Your task to perform on an android device: turn off wifi Image 0: 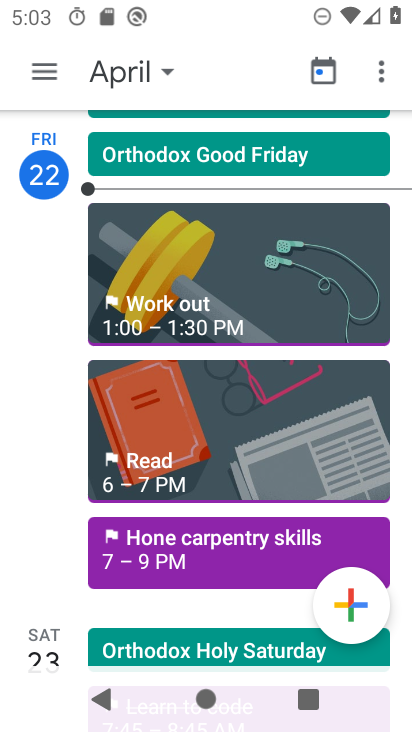
Step 0: drag from (173, 11) to (180, 522)
Your task to perform on an android device: turn off wifi Image 1: 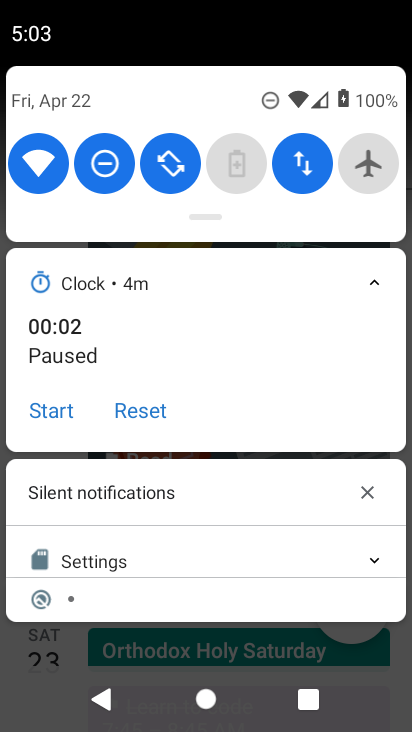
Step 1: click (44, 154)
Your task to perform on an android device: turn off wifi Image 2: 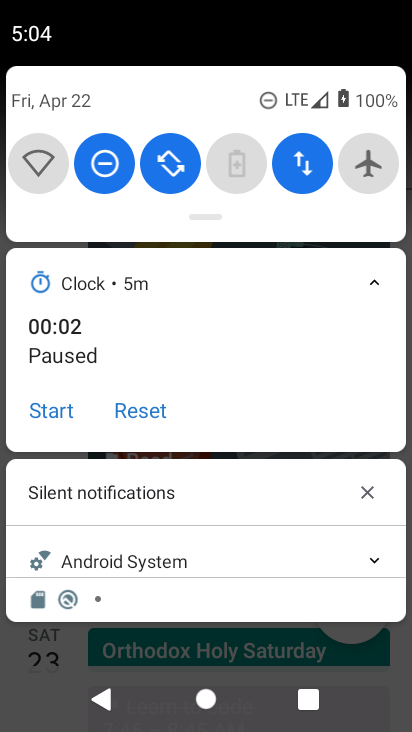
Step 2: task complete